Your task to perform on an android device: turn on sleep mode Image 0: 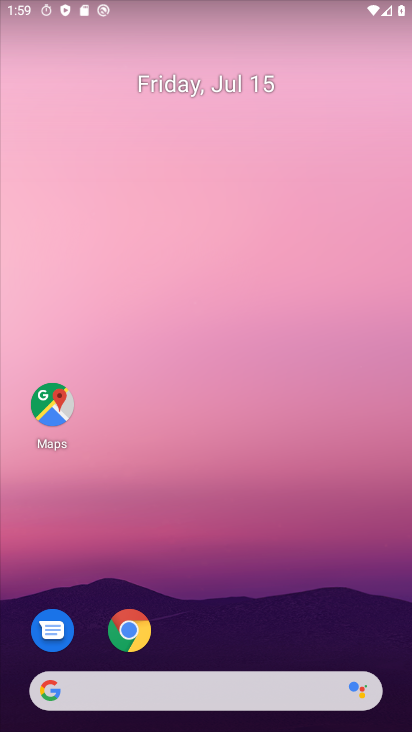
Step 0: drag from (202, 639) to (165, 136)
Your task to perform on an android device: turn on sleep mode Image 1: 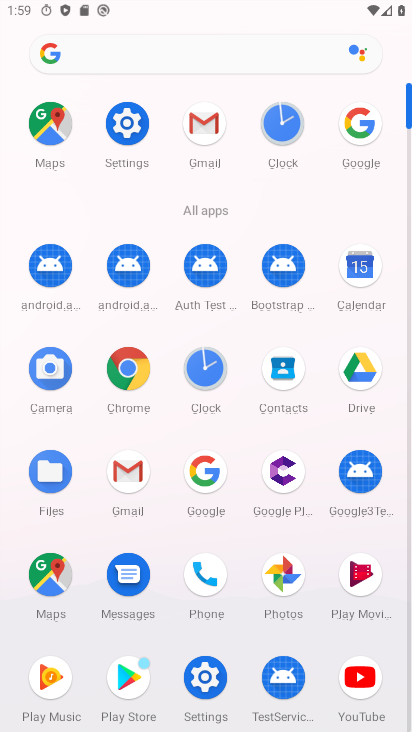
Step 1: click (111, 121)
Your task to perform on an android device: turn on sleep mode Image 2: 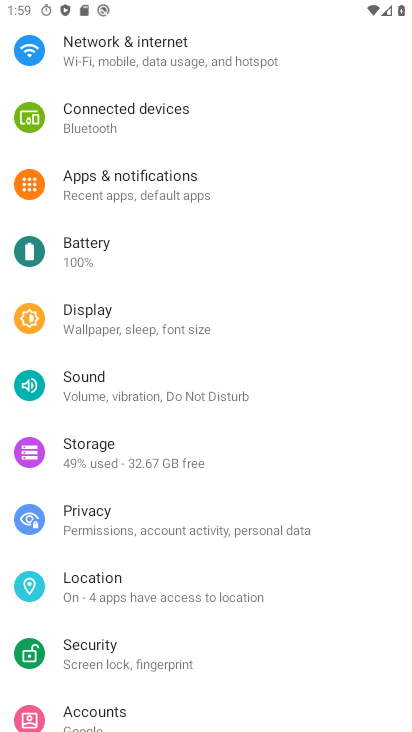
Step 2: click (120, 346)
Your task to perform on an android device: turn on sleep mode Image 3: 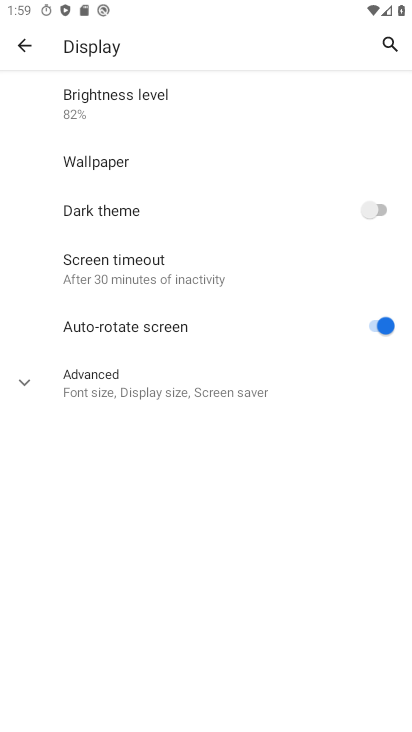
Step 3: click (146, 255)
Your task to perform on an android device: turn on sleep mode Image 4: 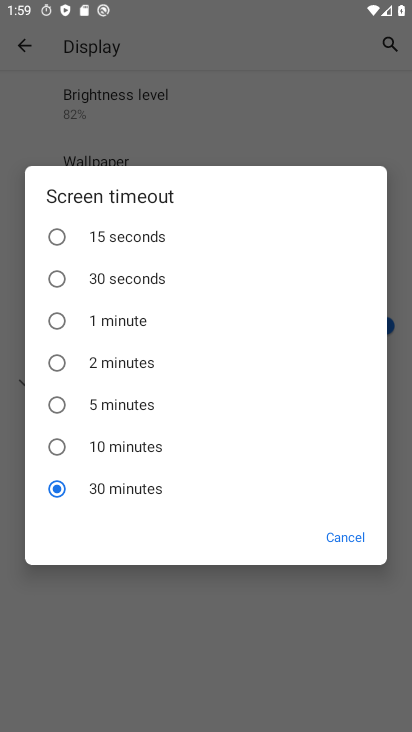
Step 4: click (119, 304)
Your task to perform on an android device: turn on sleep mode Image 5: 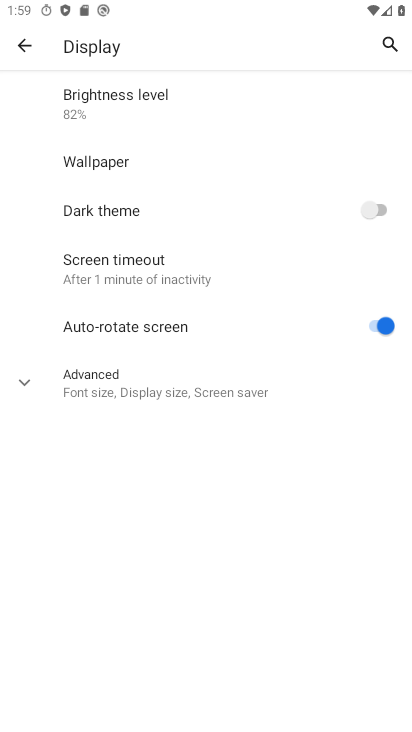
Step 5: task complete